Your task to perform on an android device: Find a good burger place on Maps Image 0: 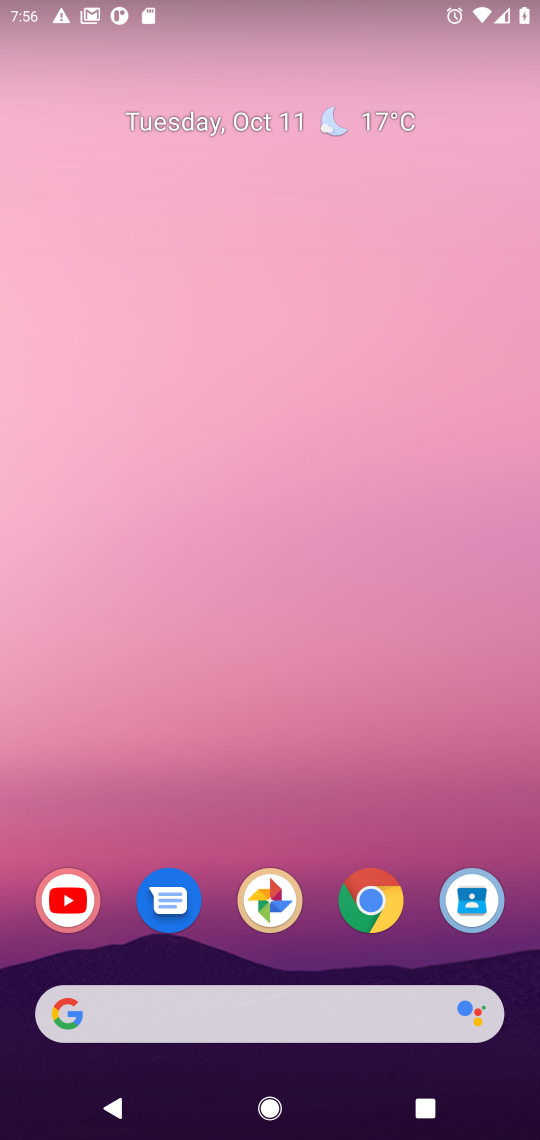
Step 0: drag from (286, 1001) to (439, 280)
Your task to perform on an android device: Find a good burger place on Maps Image 1: 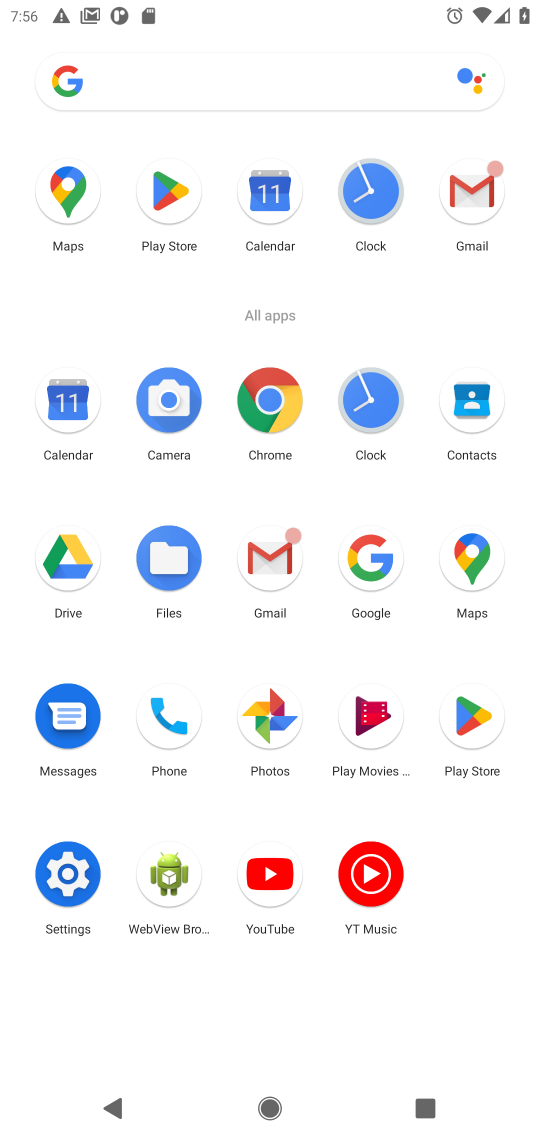
Step 1: click (479, 558)
Your task to perform on an android device: Find a good burger place on Maps Image 2: 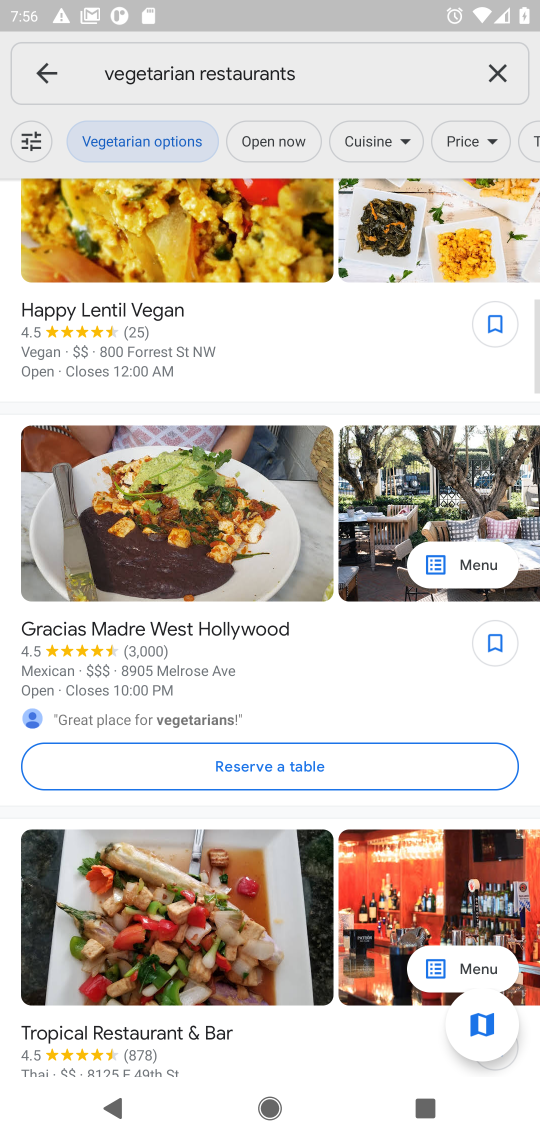
Step 2: click (497, 71)
Your task to perform on an android device: Find a good burger place on Maps Image 3: 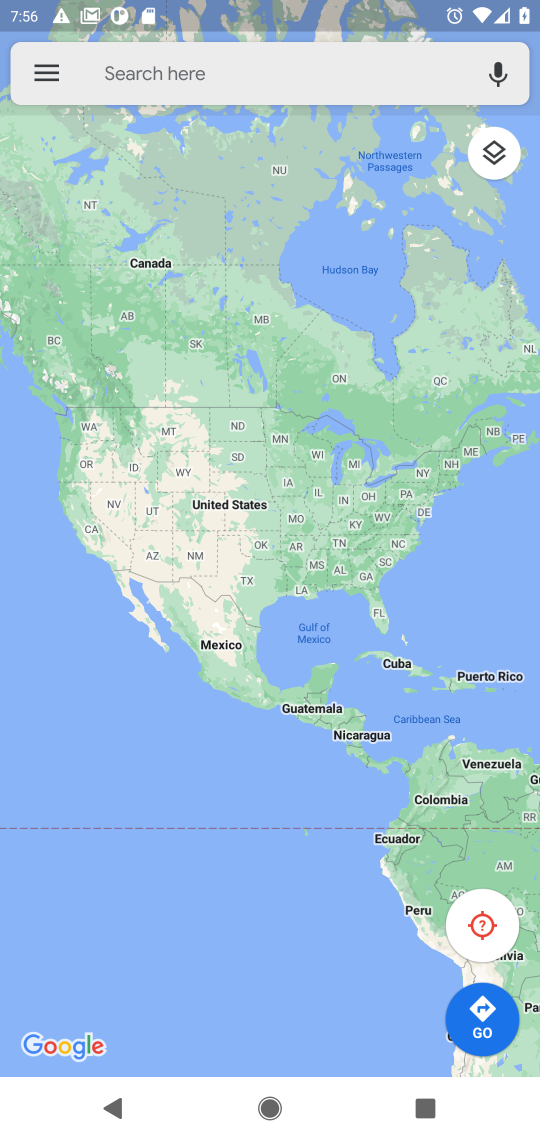
Step 3: click (173, 72)
Your task to perform on an android device: Find a good burger place on Maps Image 4: 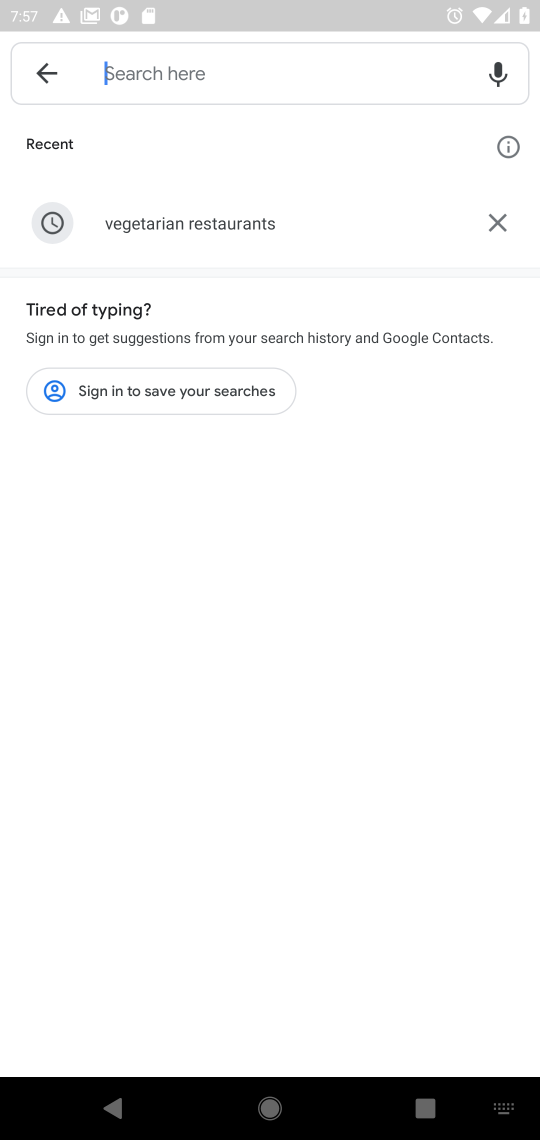
Step 4: type "good burger place"
Your task to perform on an android device: Find a good burger place on Maps Image 5: 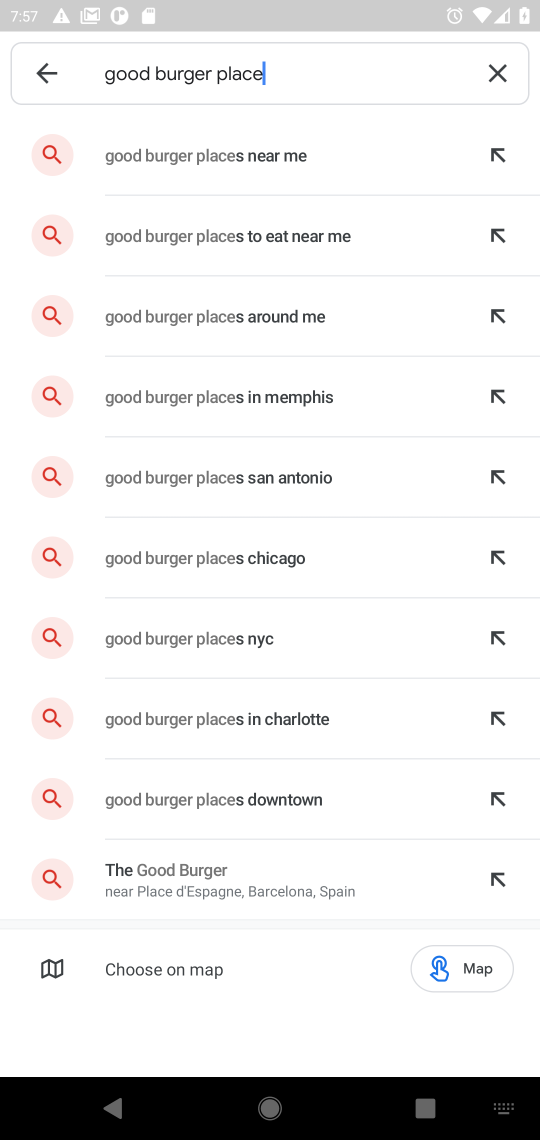
Step 5: press enter
Your task to perform on an android device: Find a good burger place on Maps Image 6: 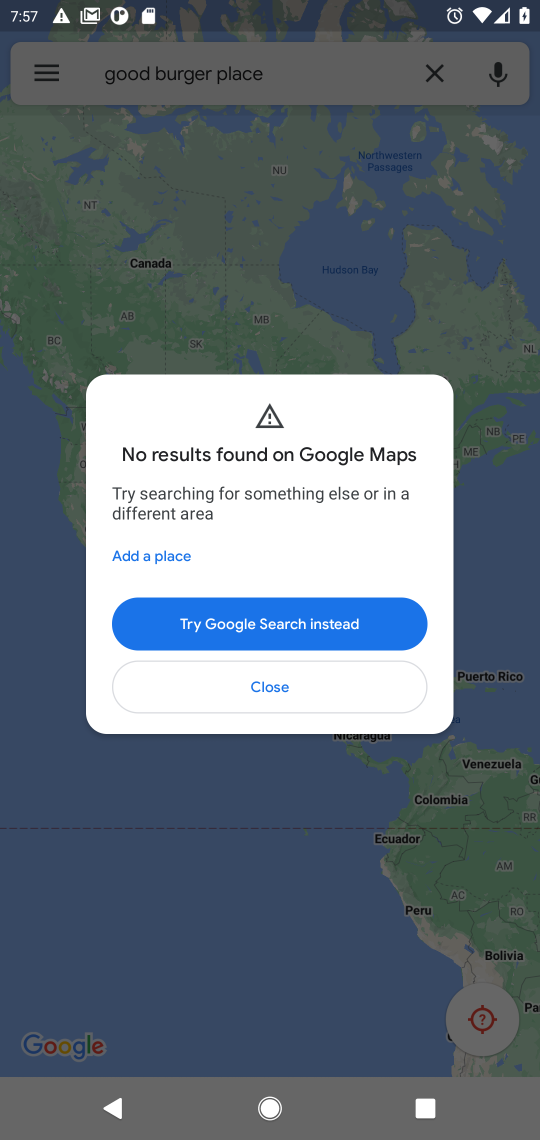
Step 6: click (352, 716)
Your task to perform on an android device: Find a good burger place on Maps Image 7: 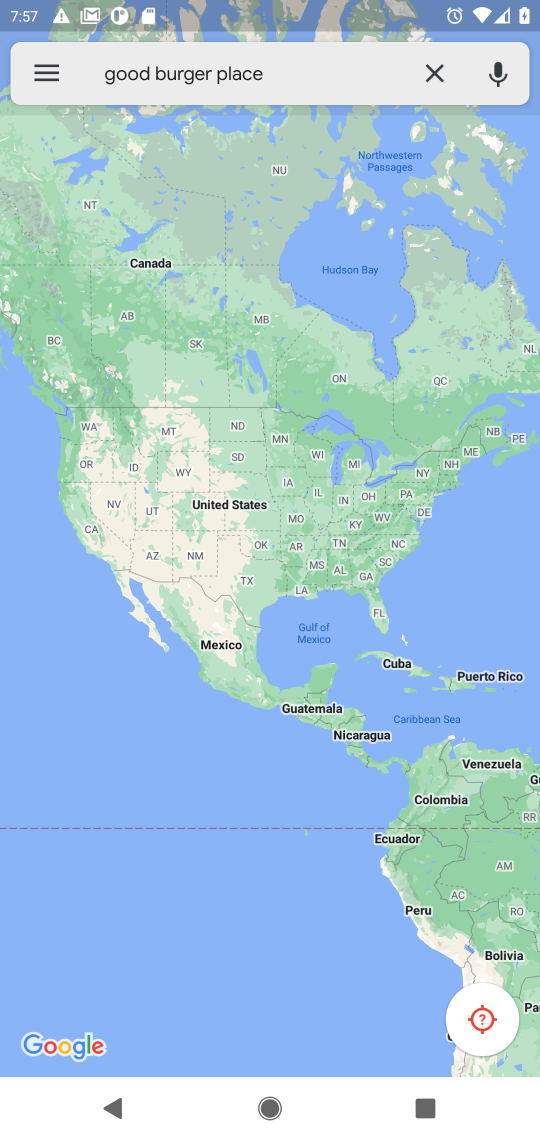
Step 7: click (434, 70)
Your task to perform on an android device: Find a good burger place on Maps Image 8: 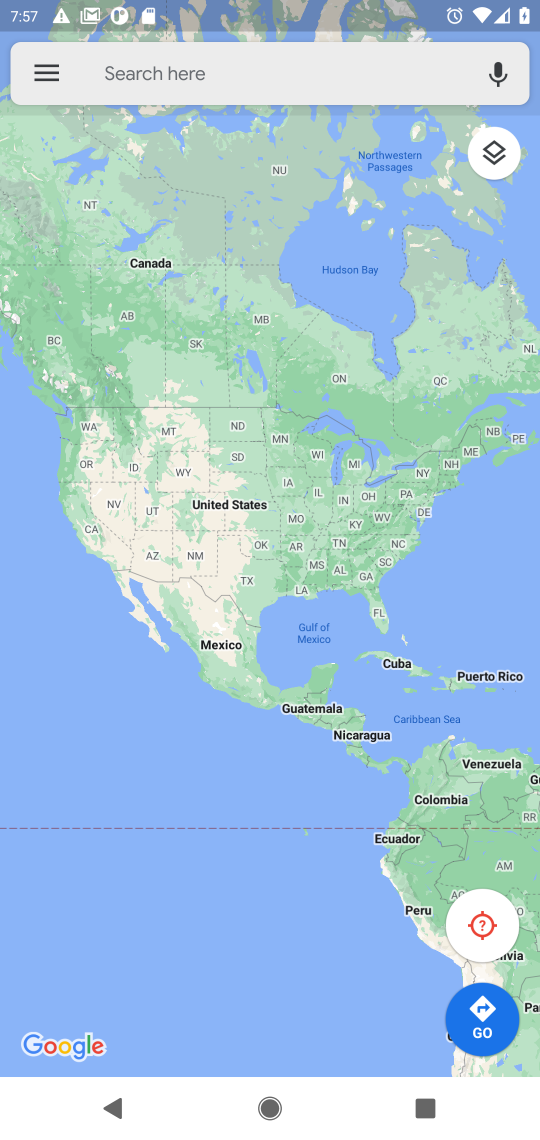
Step 8: click (108, 68)
Your task to perform on an android device: Find a good burger place on Maps Image 9: 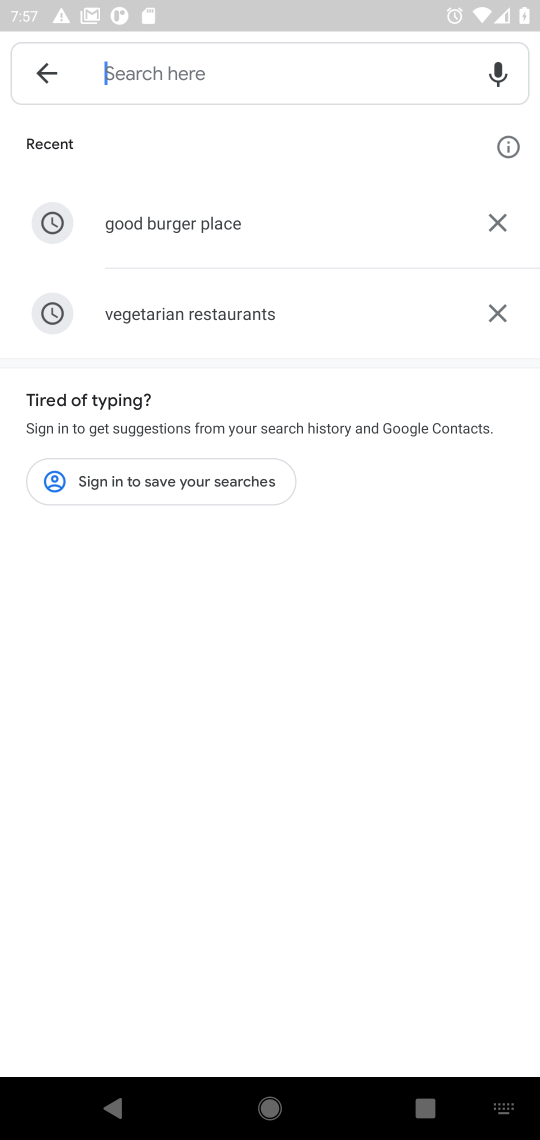
Step 9: type "burger "
Your task to perform on an android device: Find a good burger place on Maps Image 10: 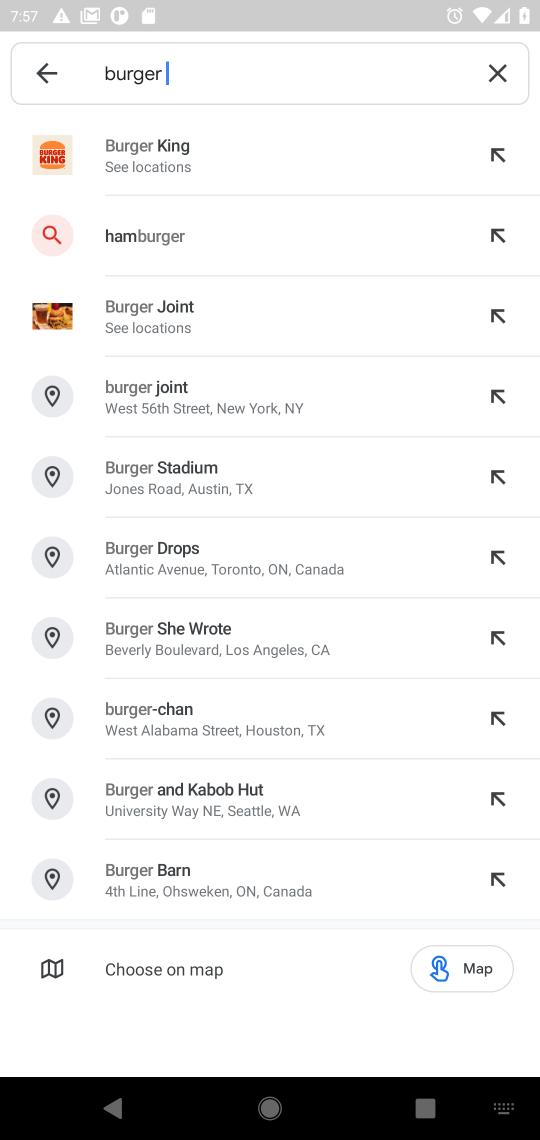
Step 10: click (187, 169)
Your task to perform on an android device: Find a good burger place on Maps Image 11: 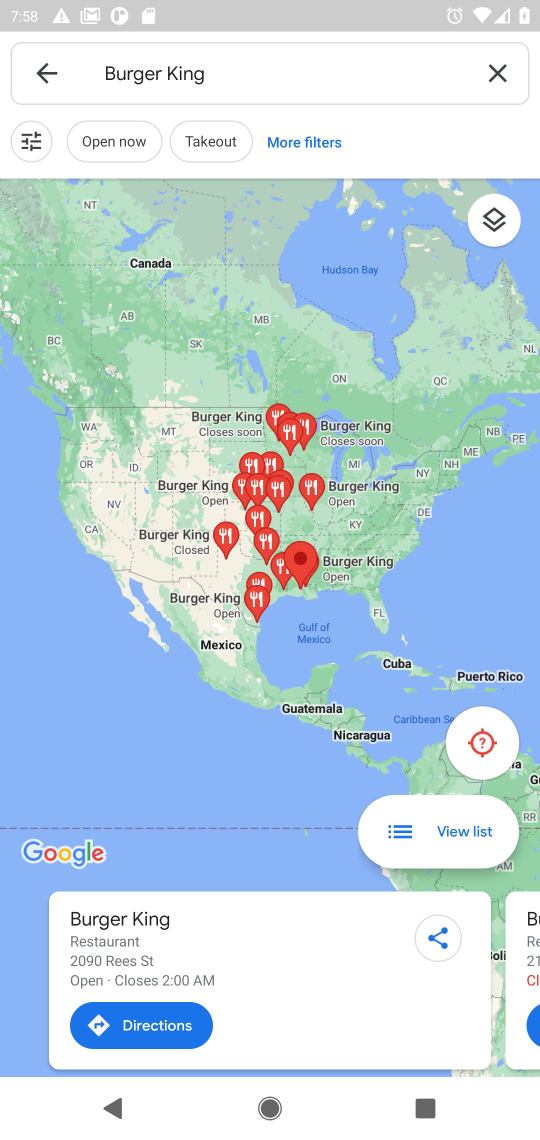
Step 11: task complete